Your task to perform on an android device: Open my contact list Image 0: 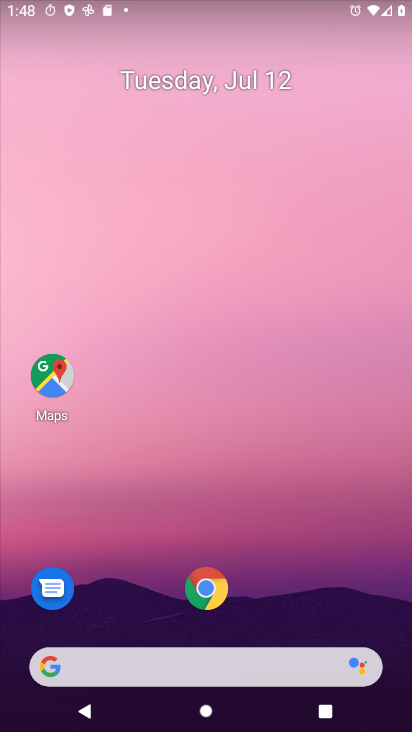
Step 0: press home button
Your task to perform on an android device: Open my contact list Image 1: 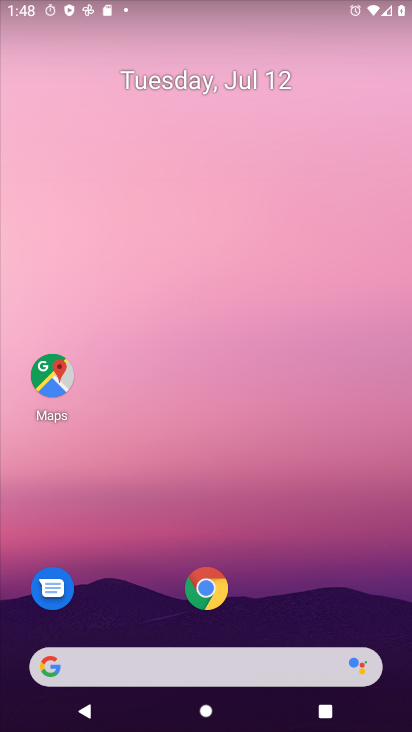
Step 1: drag from (234, 602) to (345, 13)
Your task to perform on an android device: Open my contact list Image 2: 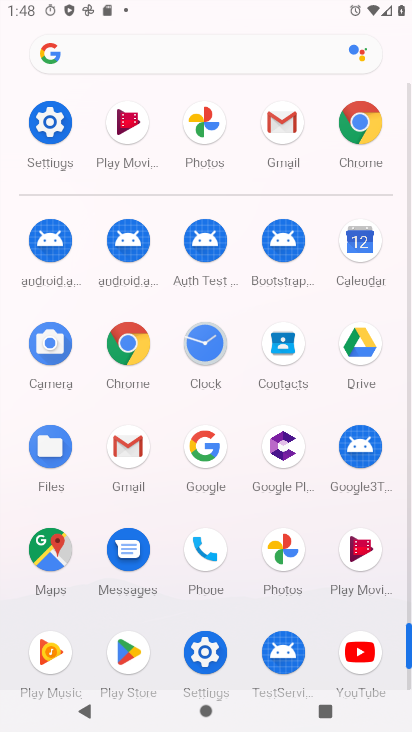
Step 2: click (284, 341)
Your task to perform on an android device: Open my contact list Image 3: 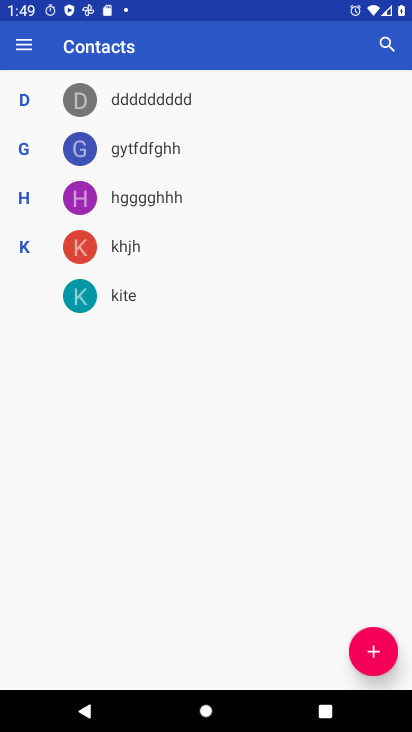
Step 3: task complete